Your task to perform on an android device: toggle javascript in the chrome app Image 0: 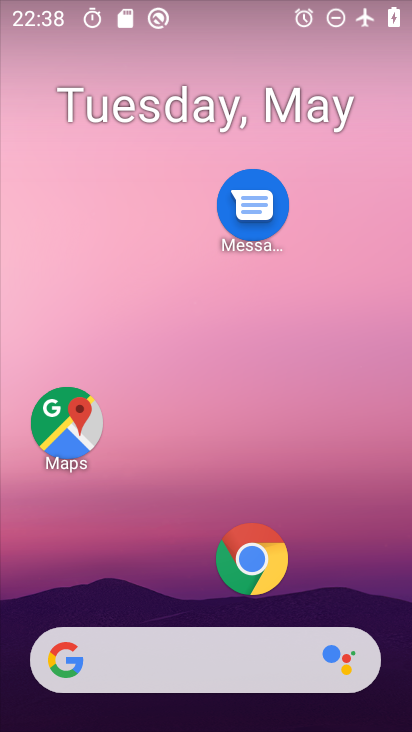
Step 0: click (229, 557)
Your task to perform on an android device: toggle javascript in the chrome app Image 1: 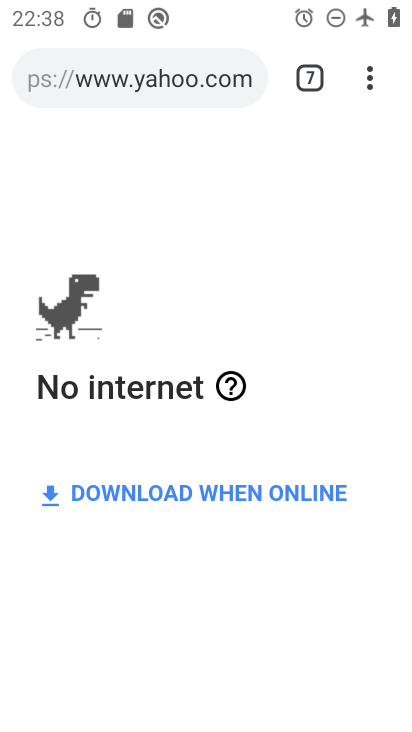
Step 1: drag from (366, 83) to (98, 624)
Your task to perform on an android device: toggle javascript in the chrome app Image 2: 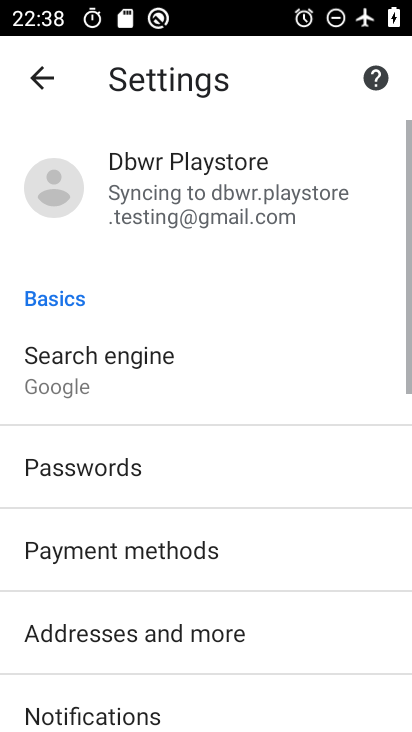
Step 2: drag from (98, 624) to (252, 215)
Your task to perform on an android device: toggle javascript in the chrome app Image 3: 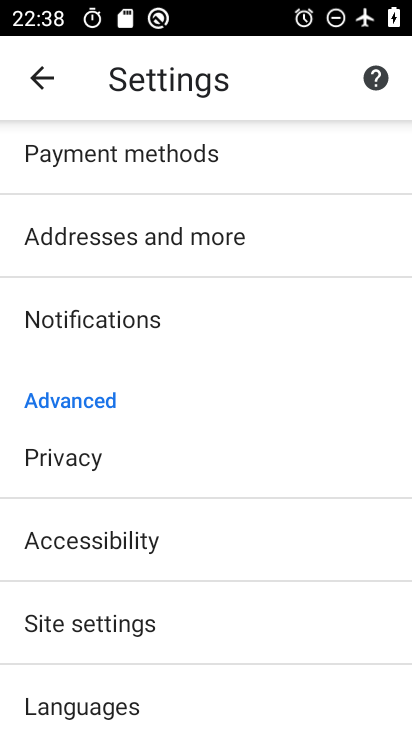
Step 3: click (188, 621)
Your task to perform on an android device: toggle javascript in the chrome app Image 4: 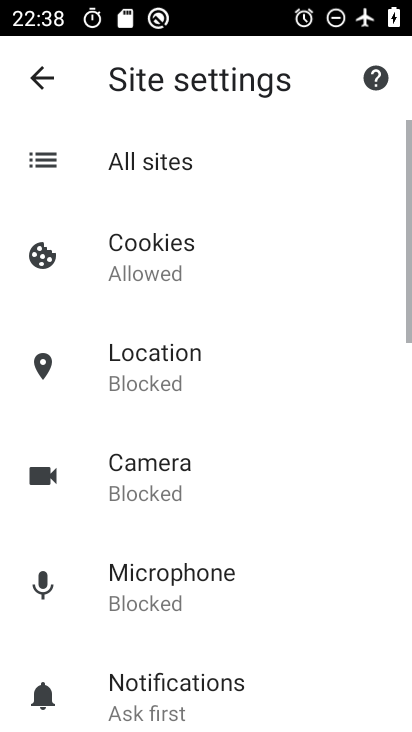
Step 4: drag from (169, 591) to (205, 246)
Your task to perform on an android device: toggle javascript in the chrome app Image 5: 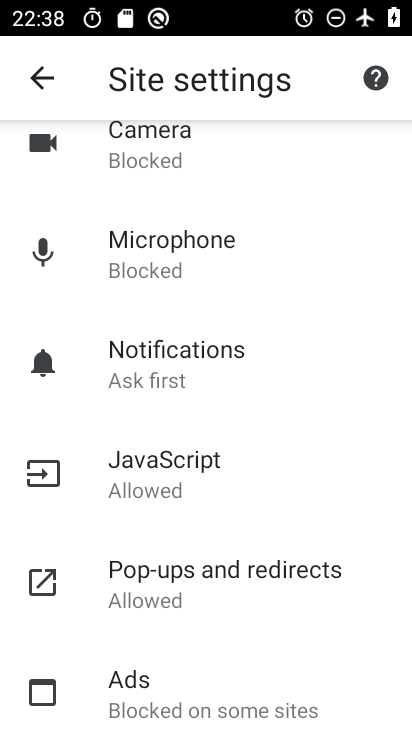
Step 5: click (208, 460)
Your task to perform on an android device: toggle javascript in the chrome app Image 6: 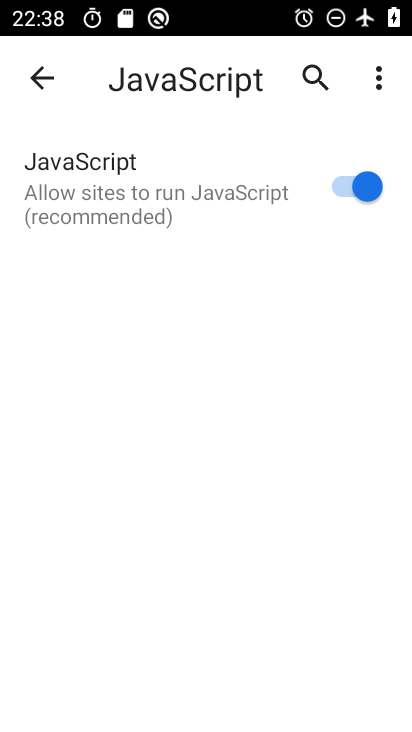
Step 6: click (349, 181)
Your task to perform on an android device: toggle javascript in the chrome app Image 7: 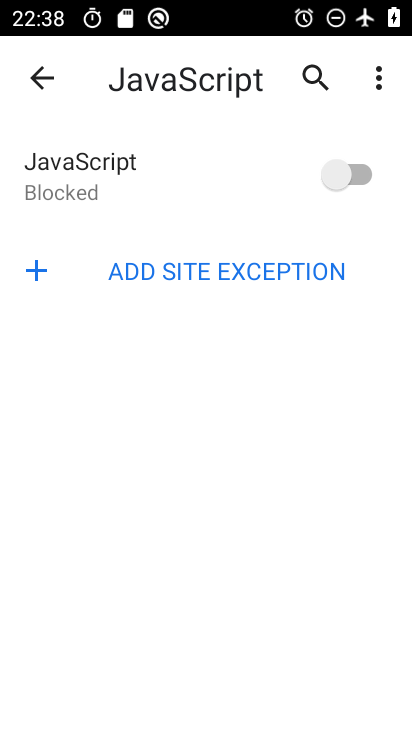
Step 7: task complete